Your task to perform on an android device: turn smart compose on in the gmail app Image 0: 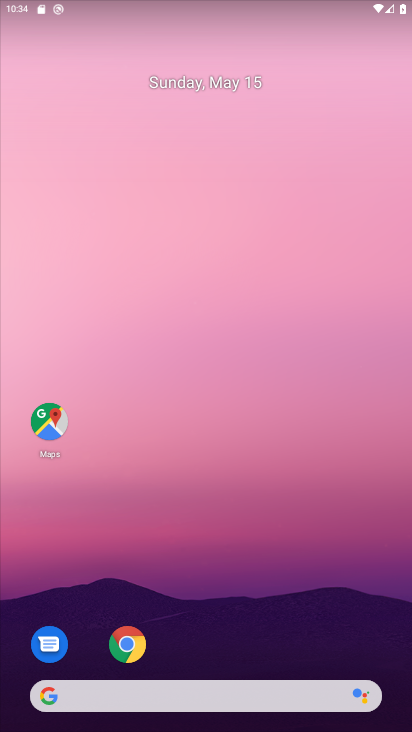
Step 0: drag from (196, 605) to (232, 173)
Your task to perform on an android device: turn smart compose on in the gmail app Image 1: 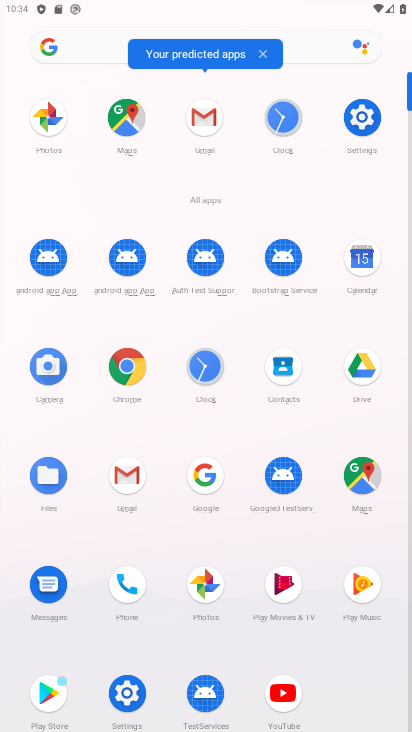
Step 1: click (204, 132)
Your task to perform on an android device: turn smart compose on in the gmail app Image 2: 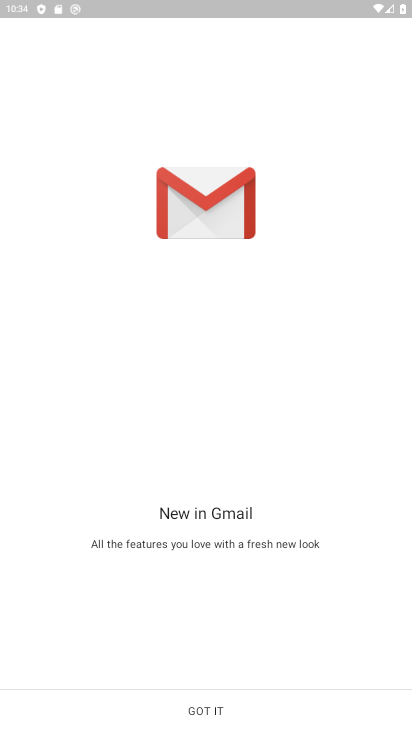
Step 2: click (227, 710)
Your task to perform on an android device: turn smart compose on in the gmail app Image 3: 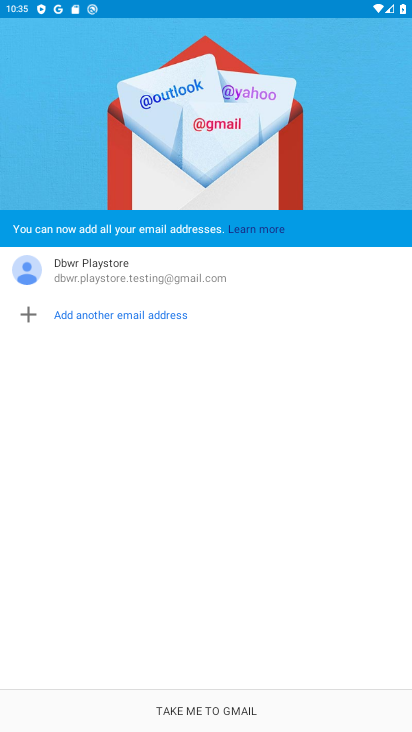
Step 3: click (227, 710)
Your task to perform on an android device: turn smart compose on in the gmail app Image 4: 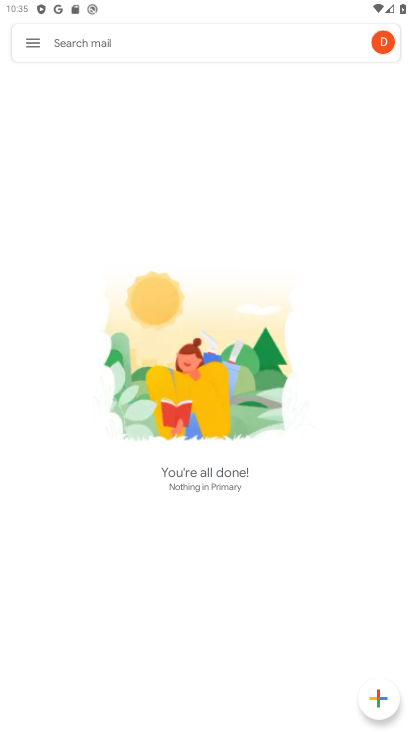
Step 4: click (39, 49)
Your task to perform on an android device: turn smart compose on in the gmail app Image 5: 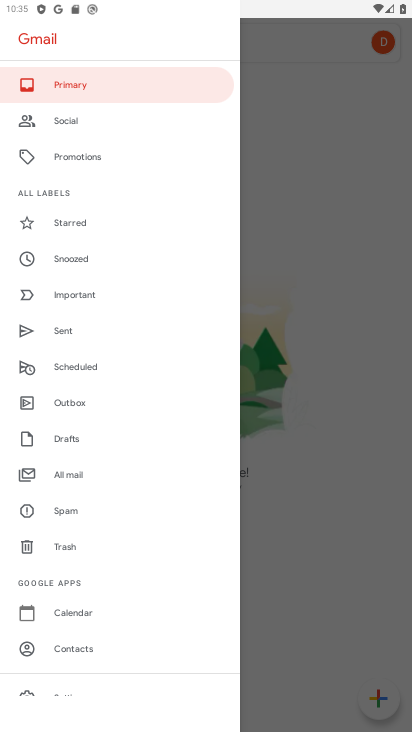
Step 5: drag from (104, 708) to (91, 392)
Your task to perform on an android device: turn smart compose on in the gmail app Image 6: 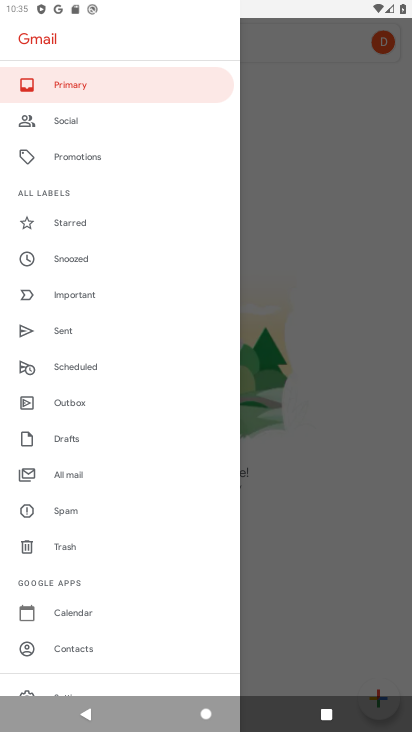
Step 6: drag from (169, 682) to (130, 169)
Your task to perform on an android device: turn smart compose on in the gmail app Image 7: 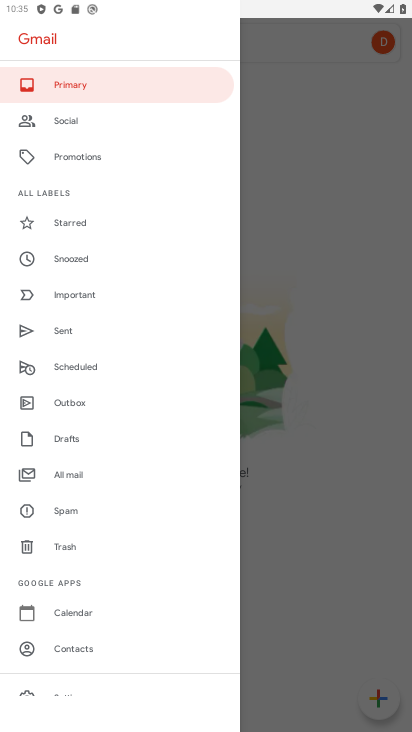
Step 7: drag from (134, 673) to (128, 282)
Your task to perform on an android device: turn smart compose on in the gmail app Image 8: 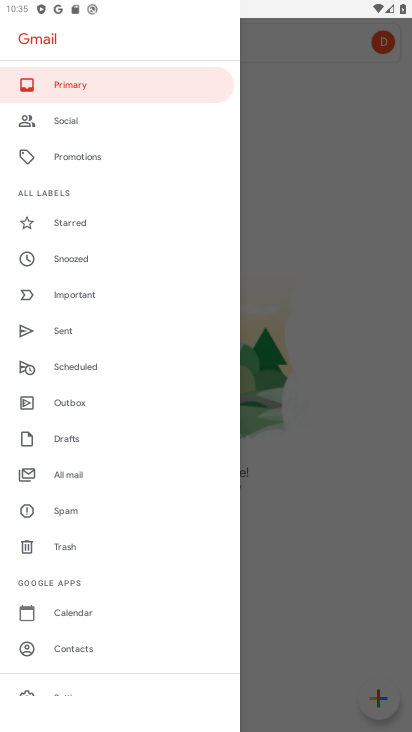
Step 8: drag from (208, 657) to (187, 217)
Your task to perform on an android device: turn smart compose on in the gmail app Image 9: 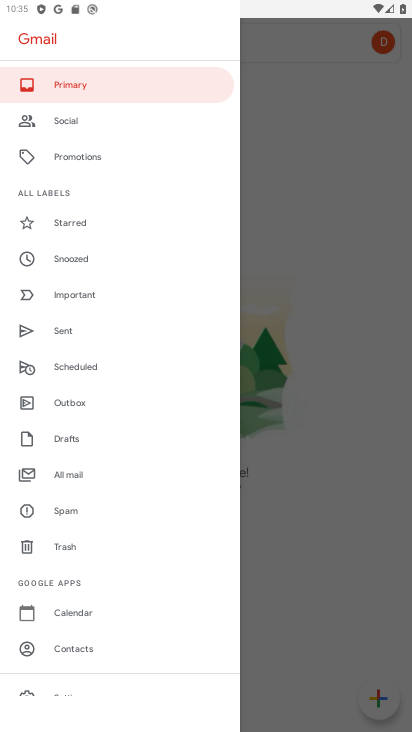
Step 9: drag from (119, 684) to (107, 391)
Your task to perform on an android device: turn smart compose on in the gmail app Image 10: 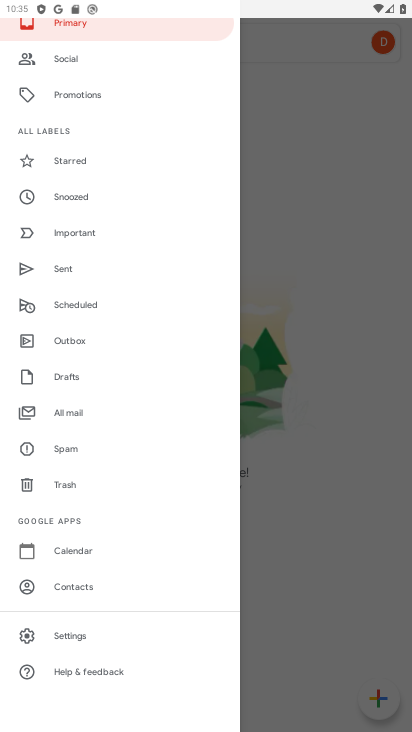
Step 10: click (93, 637)
Your task to perform on an android device: turn smart compose on in the gmail app Image 11: 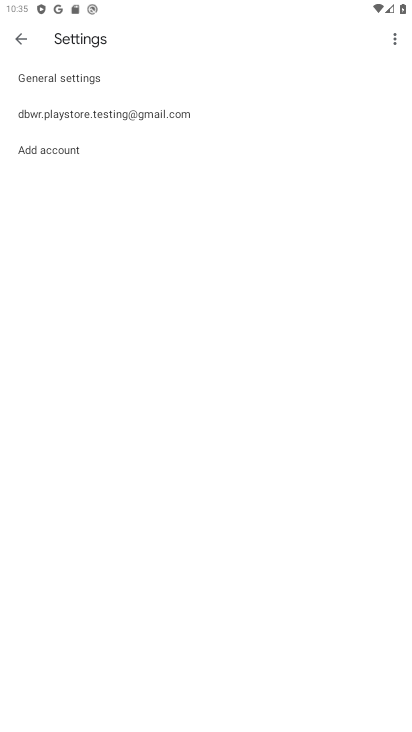
Step 11: click (221, 117)
Your task to perform on an android device: turn smart compose on in the gmail app Image 12: 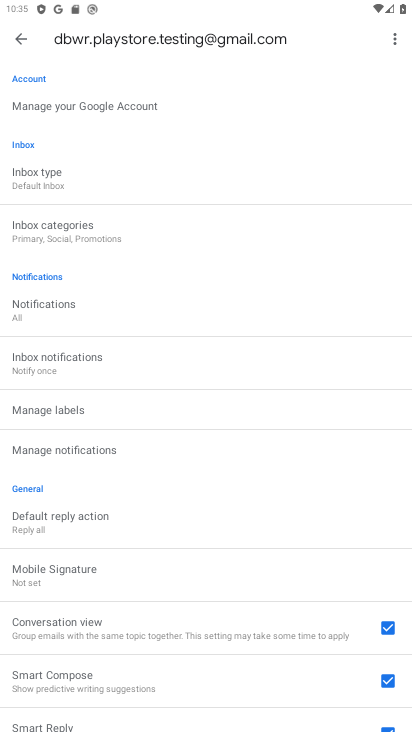
Step 12: task complete